Your task to perform on an android device: turn on notifications settings in the gmail app Image 0: 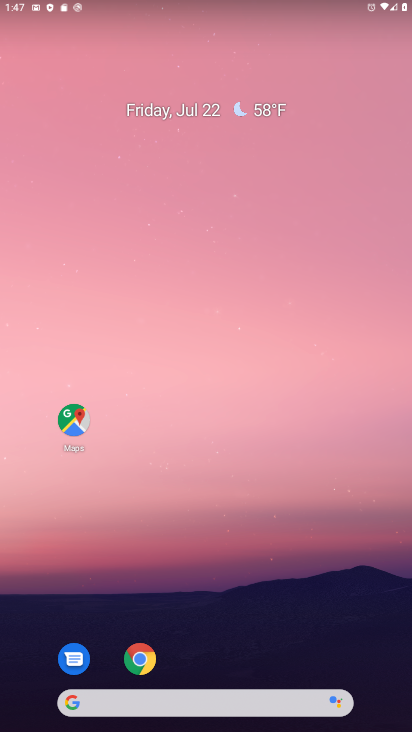
Step 0: drag from (224, 679) to (87, 4)
Your task to perform on an android device: turn on notifications settings in the gmail app Image 1: 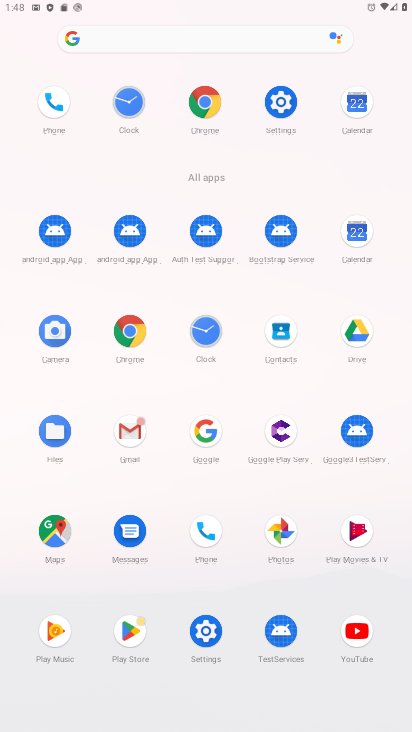
Step 1: click (112, 442)
Your task to perform on an android device: turn on notifications settings in the gmail app Image 2: 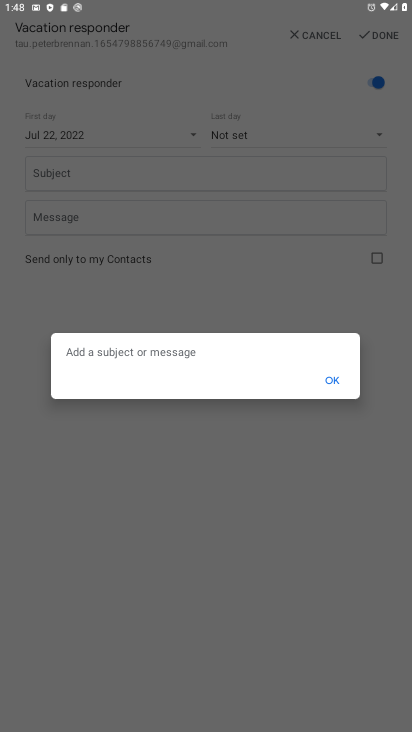
Step 2: click (332, 385)
Your task to perform on an android device: turn on notifications settings in the gmail app Image 3: 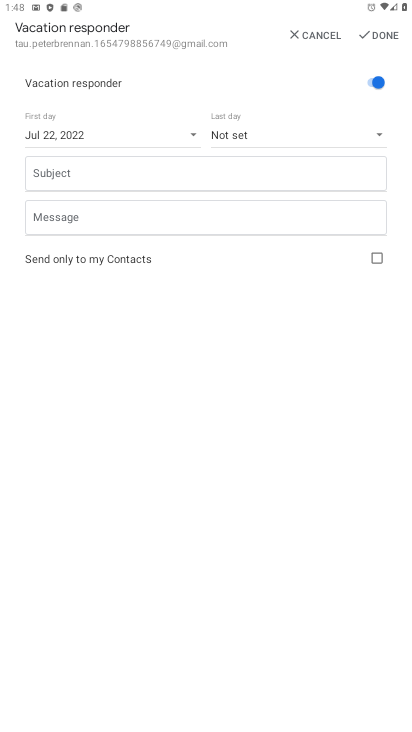
Step 3: click (328, 34)
Your task to perform on an android device: turn on notifications settings in the gmail app Image 4: 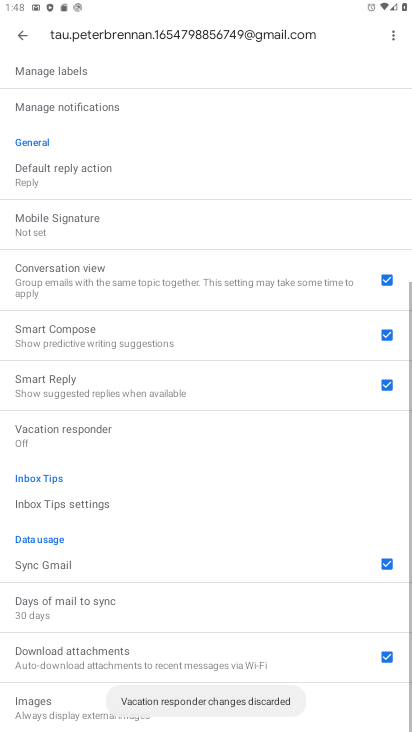
Step 4: click (29, 29)
Your task to perform on an android device: turn on notifications settings in the gmail app Image 5: 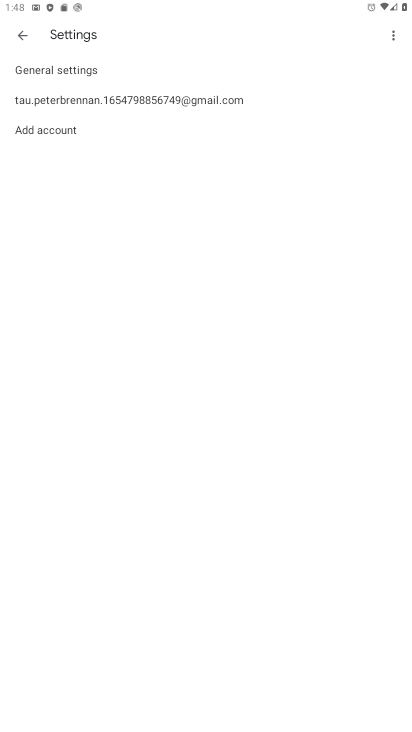
Step 5: click (69, 66)
Your task to perform on an android device: turn on notifications settings in the gmail app Image 6: 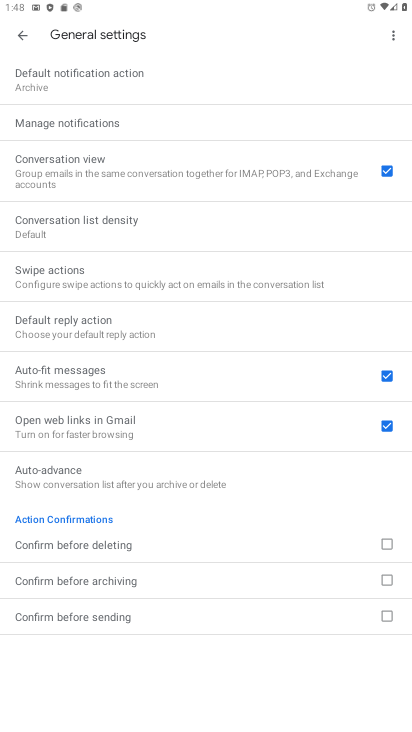
Step 6: click (85, 114)
Your task to perform on an android device: turn on notifications settings in the gmail app Image 7: 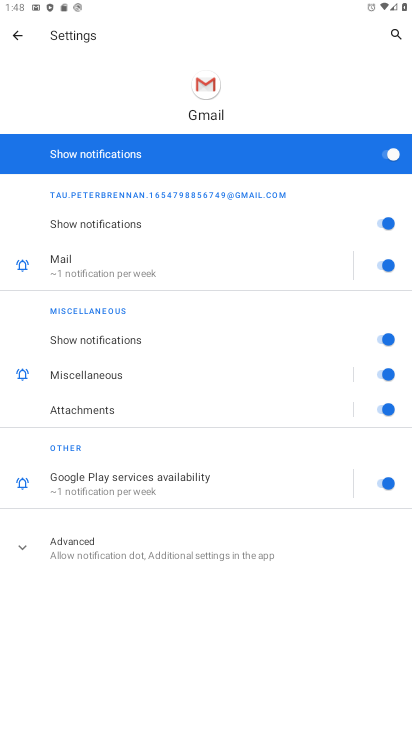
Step 7: task complete